Your task to perform on an android device: What's the weather going to be tomorrow? Image 0: 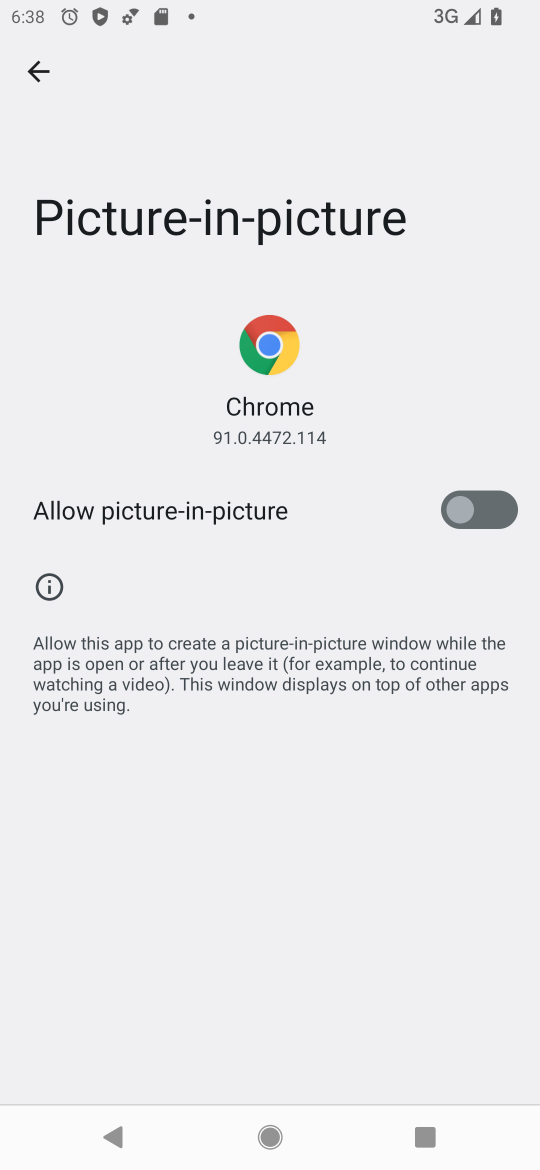
Step 0: press home button
Your task to perform on an android device: What's the weather going to be tomorrow? Image 1: 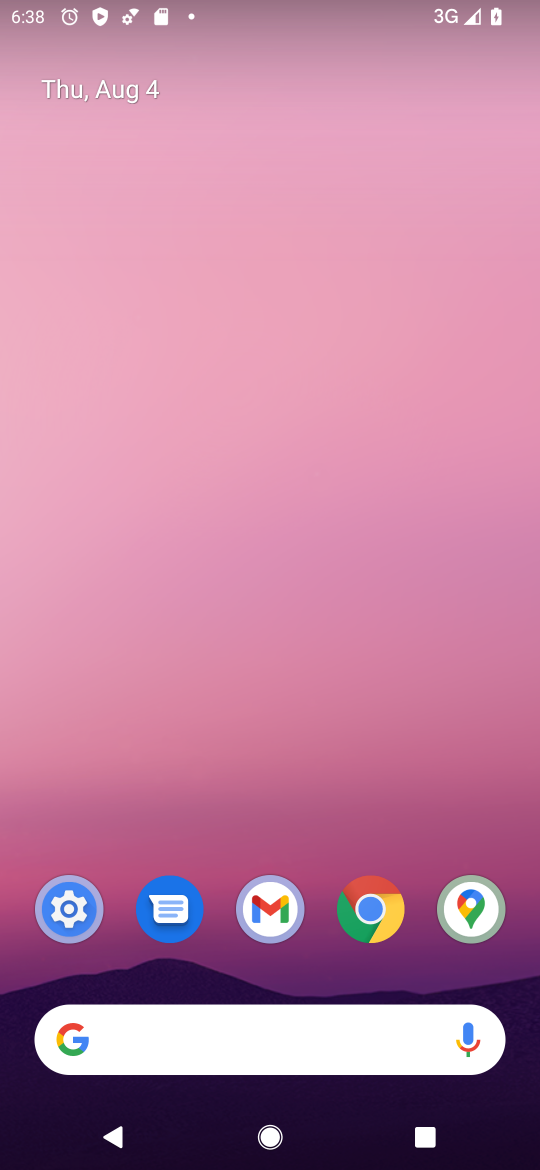
Step 1: drag from (217, 942) to (282, 150)
Your task to perform on an android device: What's the weather going to be tomorrow? Image 2: 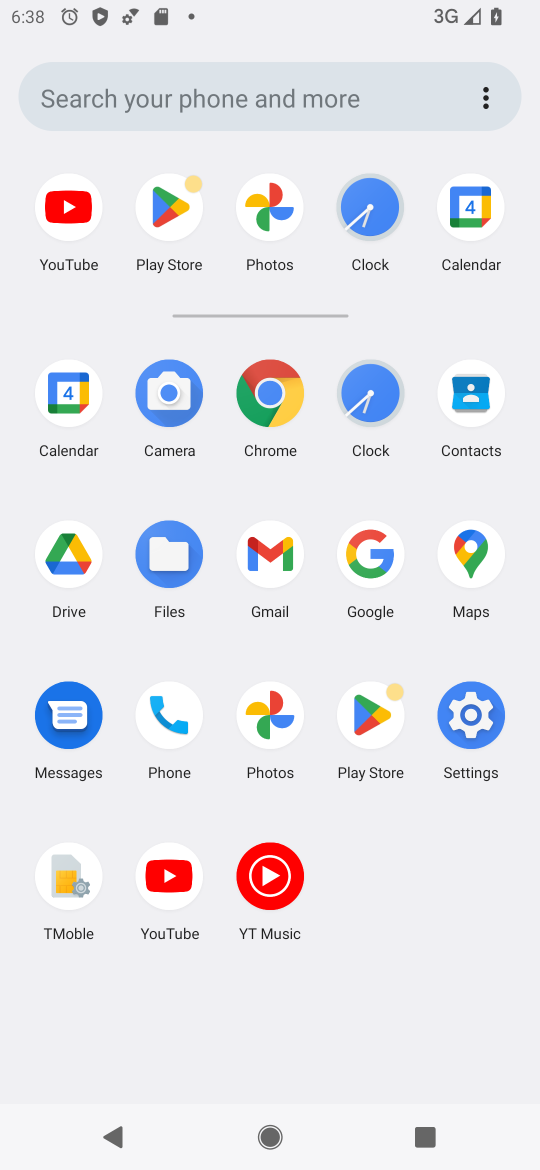
Step 2: click (362, 581)
Your task to perform on an android device: What's the weather going to be tomorrow? Image 3: 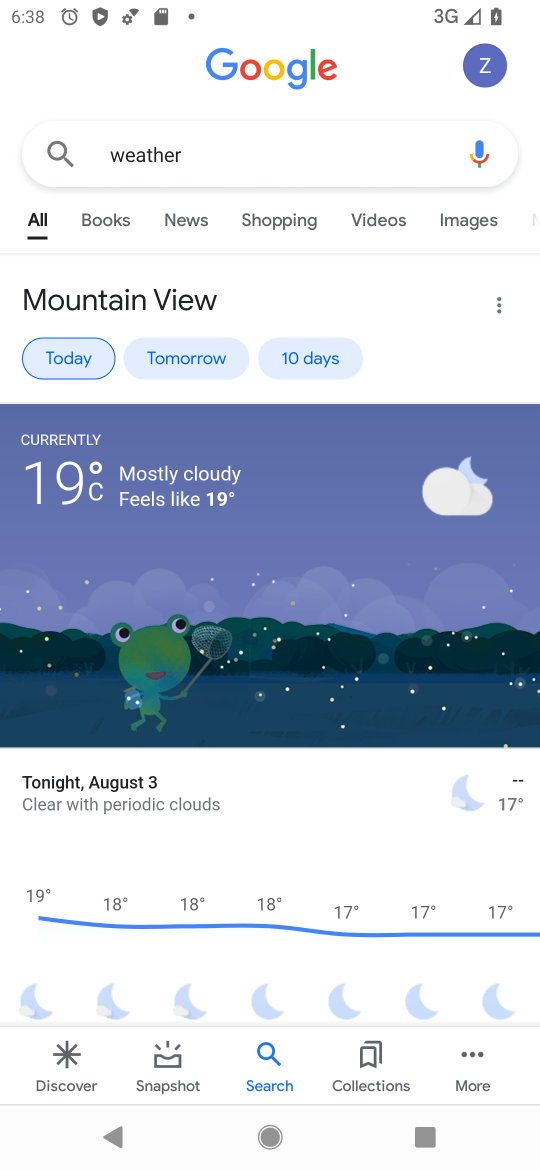
Step 3: click (169, 358)
Your task to perform on an android device: What's the weather going to be tomorrow? Image 4: 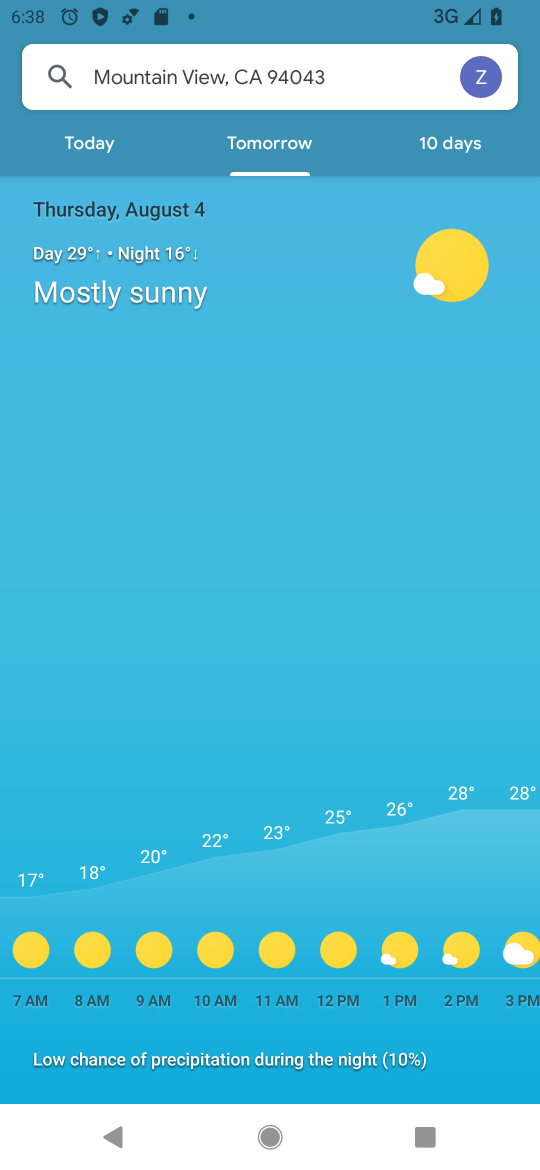
Step 4: task complete